Your task to perform on an android device: Go to Android settings Image 0: 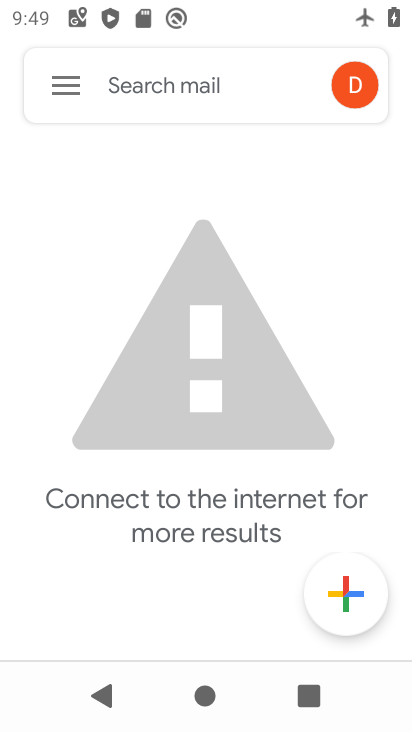
Step 0: press home button
Your task to perform on an android device: Go to Android settings Image 1: 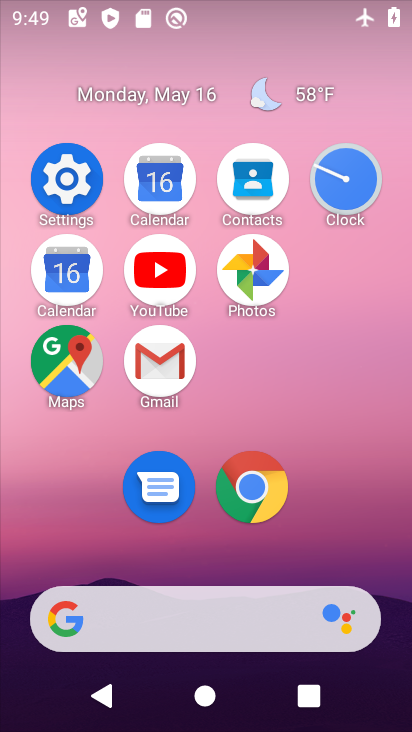
Step 1: click (84, 168)
Your task to perform on an android device: Go to Android settings Image 2: 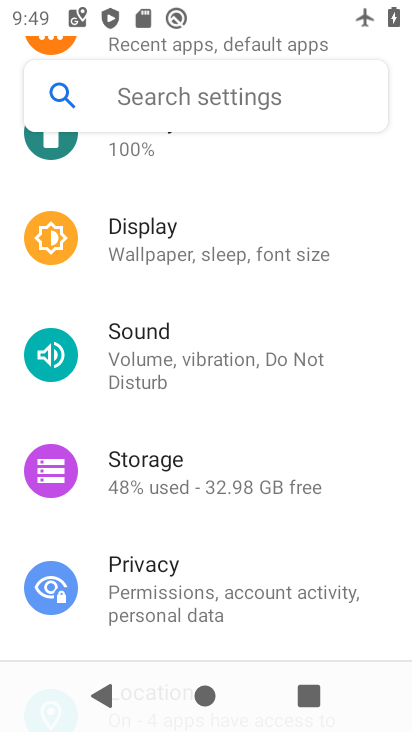
Step 2: task complete